Your task to perform on an android device: Open CNN.com Image 0: 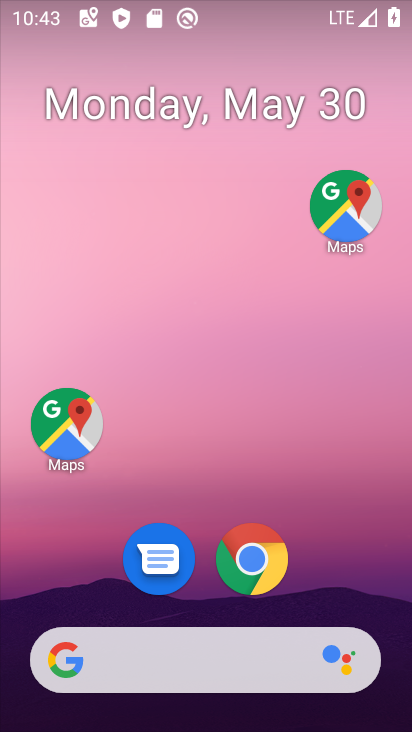
Step 0: click (254, 554)
Your task to perform on an android device: Open CNN.com Image 1: 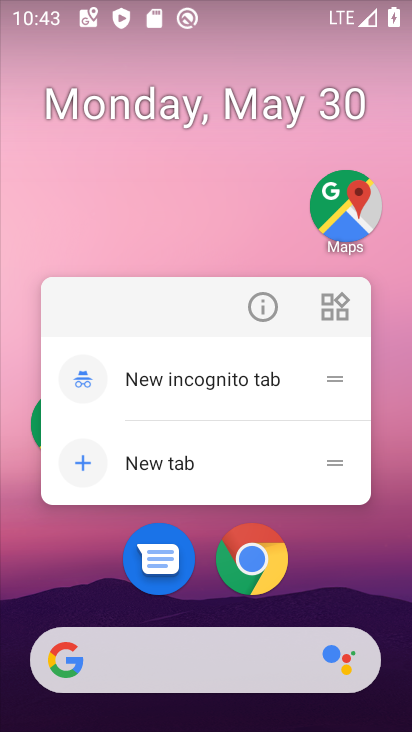
Step 1: click (253, 566)
Your task to perform on an android device: Open CNN.com Image 2: 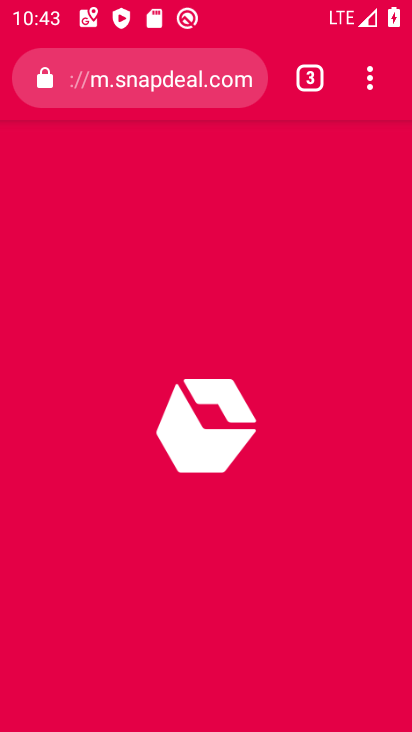
Step 2: click (180, 84)
Your task to perform on an android device: Open CNN.com Image 3: 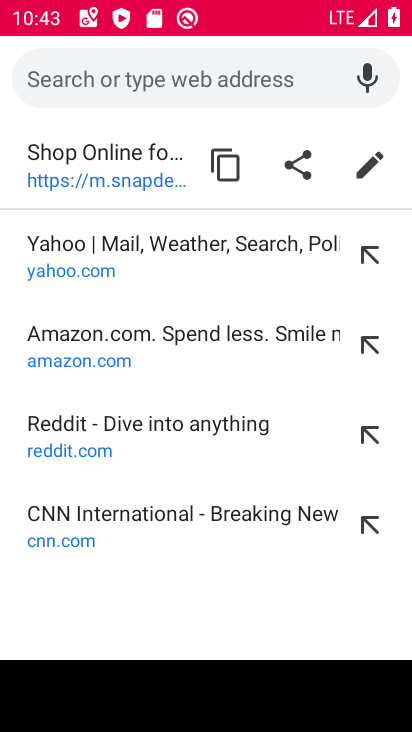
Step 3: click (72, 544)
Your task to perform on an android device: Open CNN.com Image 4: 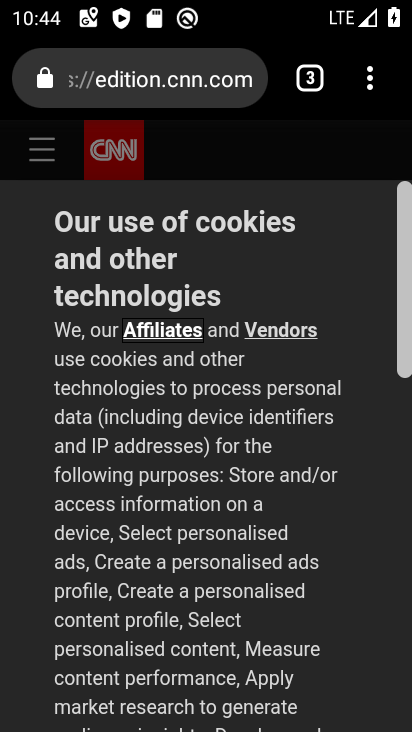
Step 4: task complete